Your task to perform on an android device: Set the phone to "Do not disturb". Image 0: 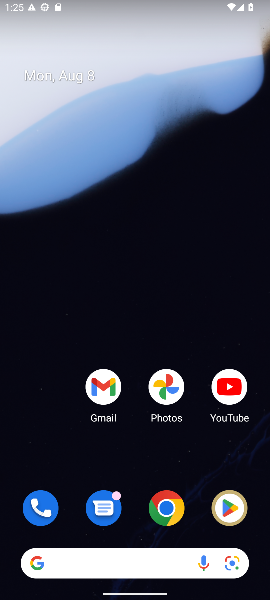
Step 0: click (170, 60)
Your task to perform on an android device: Set the phone to "Do not disturb". Image 1: 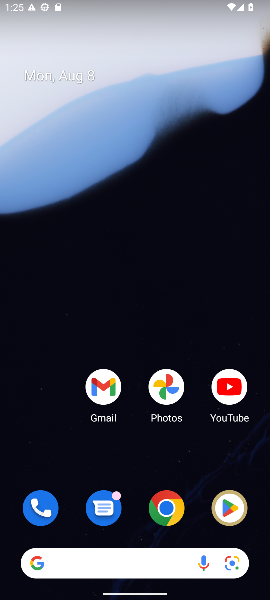
Step 1: drag from (124, 382) to (160, 103)
Your task to perform on an android device: Set the phone to "Do not disturb". Image 2: 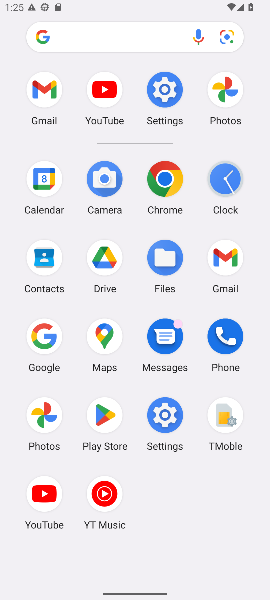
Step 2: click (164, 88)
Your task to perform on an android device: Set the phone to "Do not disturb". Image 3: 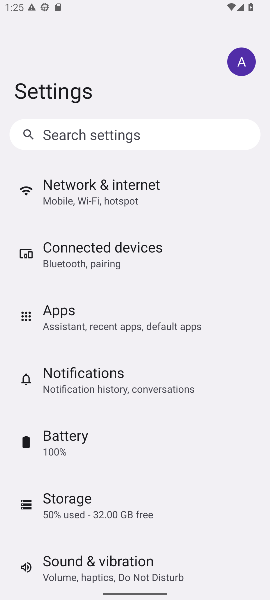
Step 3: drag from (76, 466) to (96, 340)
Your task to perform on an android device: Set the phone to "Do not disturb". Image 4: 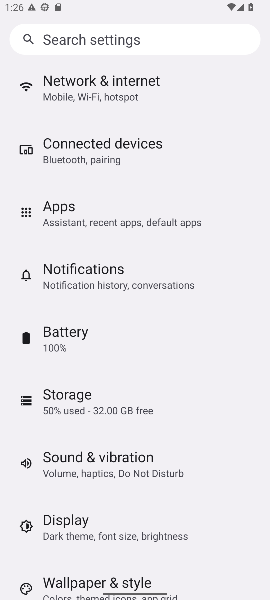
Step 4: click (125, 471)
Your task to perform on an android device: Set the phone to "Do not disturb". Image 5: 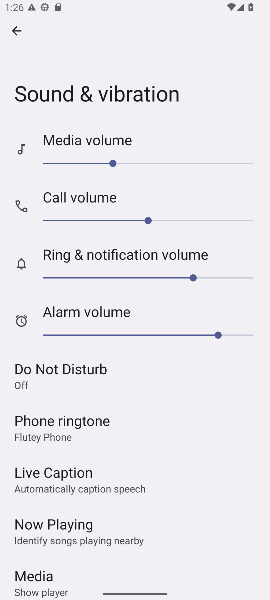
Step 5: drag from (99, 512) to (101, 253)
Your task to perform on an android device: Set the phone to "Do not disturb". Image 6: 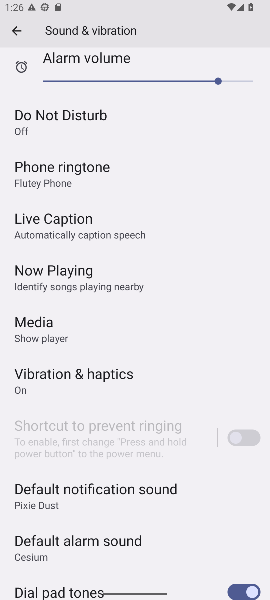
Step 6: click (26, 125)
Your task to perform on an android device: Set the phone to "Do not disturb". Image 7: 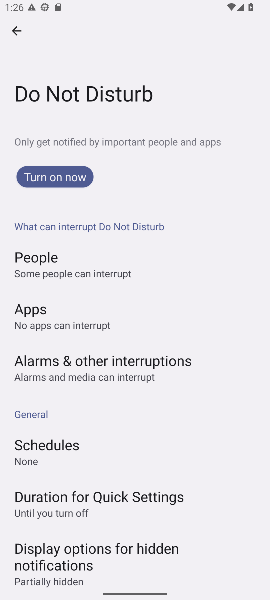
Step 7: click (45, 173)
Your task to perform on an android device: Set the phone to "Do not disturb". Image 8: 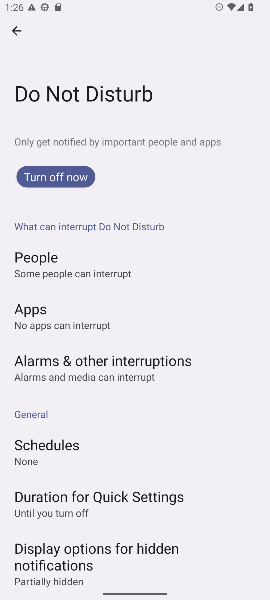
Step 8: click (83, 177)
Your task to perform on an android device: Set the phone to "Do not disturb". Image 9: 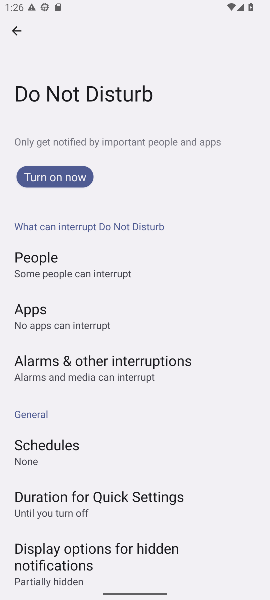
Step 9: task complete